Your task to perform on an android device: open a new tab in the chrome app Image 0: 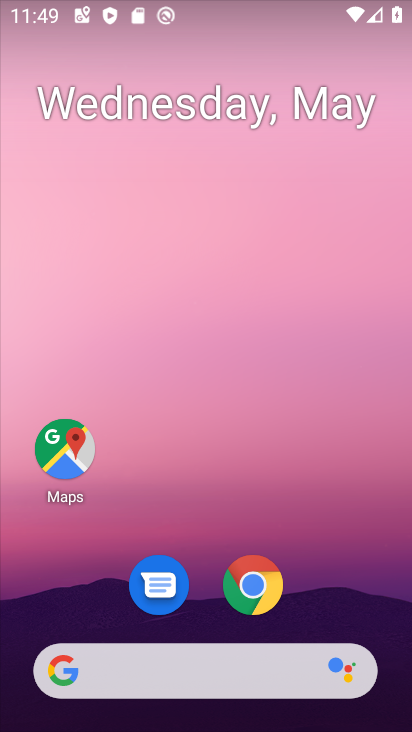
Step 0: click (259, 583)
Your task to perform on an android device: open a new tab in the chrome app Image 1: 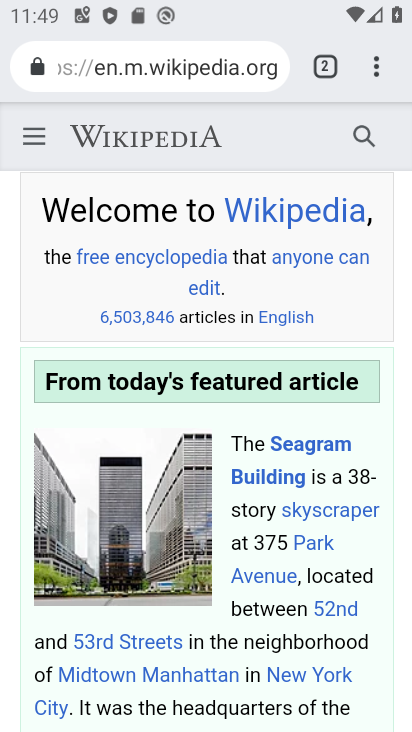
Step 1: click (368, 74)
Your task to perform on an android device: open a new tab in the chrome app Image 2: 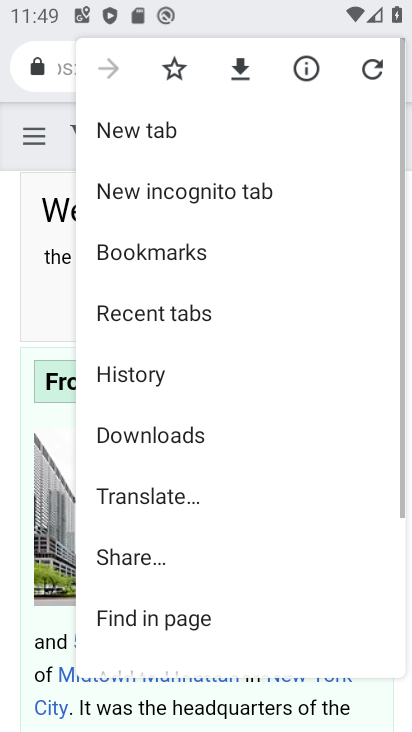
Step 2: click (289, 123)
Your task to perform on an android device: open a new tab in the chrome app Image 3: 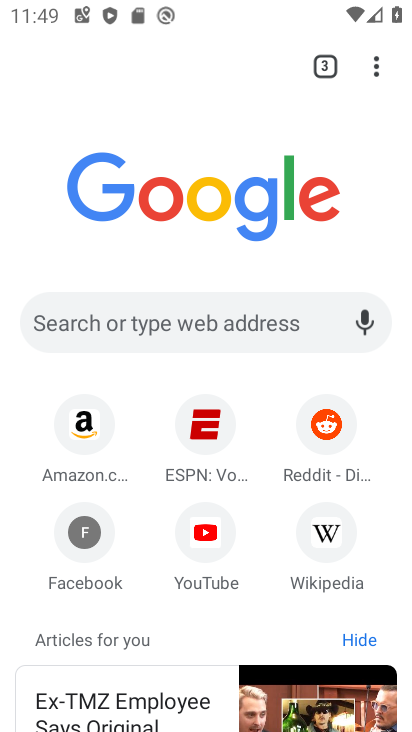
Step 3: task complete